Your task to perform on an android device: turn on translation in the chrome app Image 0: 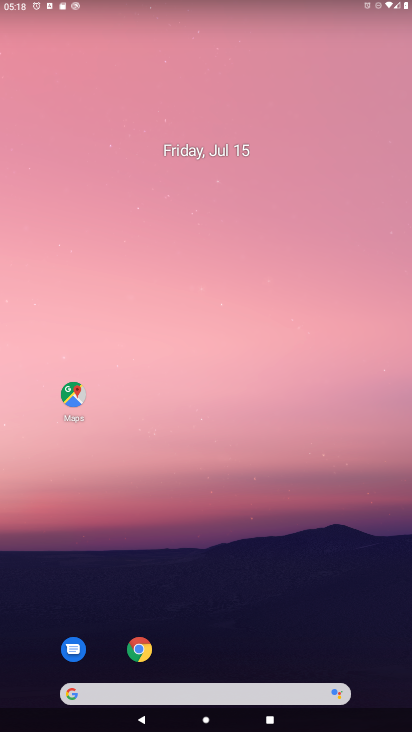
Step 0: click (139, 648)
Your task to perform on an android device: turn on translation in the chrome app Image 1: 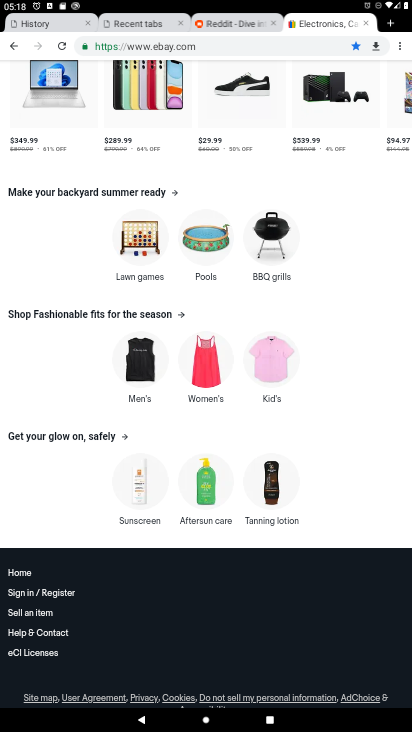
Step 1: click (401, 48)
Your task to perform on an android device: turn on translation in the chrome app Image 2: 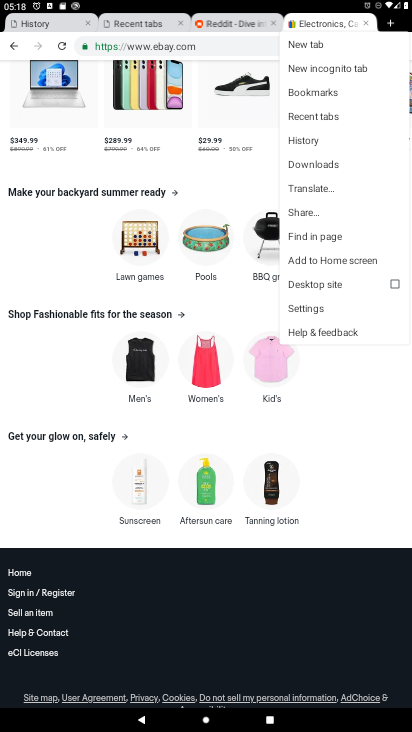
Step 2: click (309, 307)
Your task to perform on an android device: turn on translation in the chrome app Image 3: 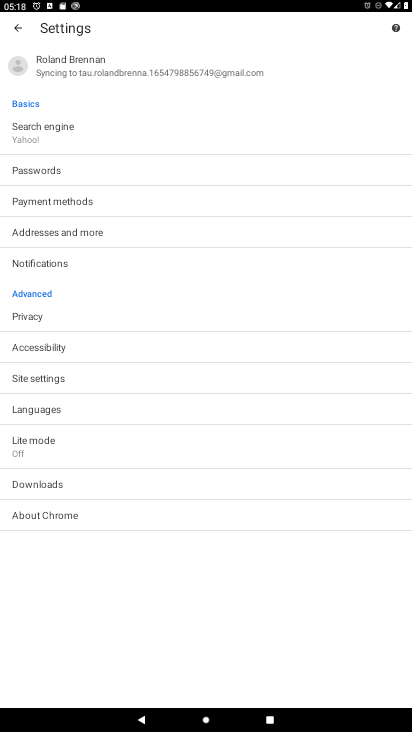
Step 3: click (33, 402)
Your task to perform on an android device: turn on translation in the chrome app Image 4: 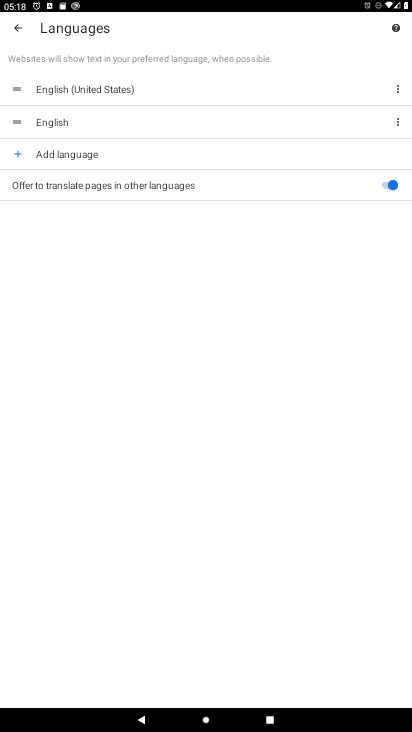
Step 4: task complete